Your task to perform on an android device: empty trash in google photos Image 0: 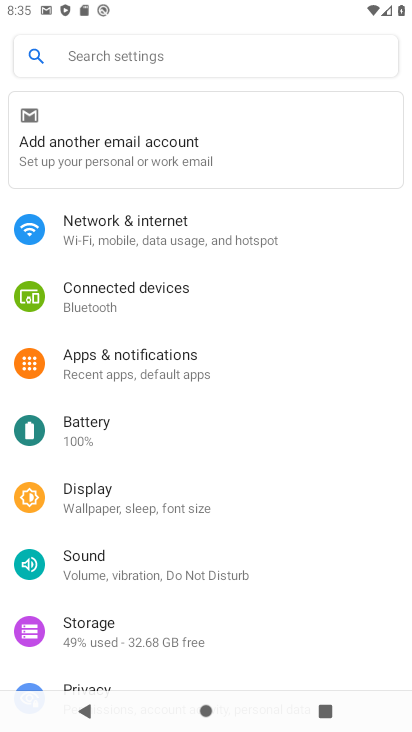
Step 0: press home button
Your task to perform on an android device: empty trash in google photos Image 1: 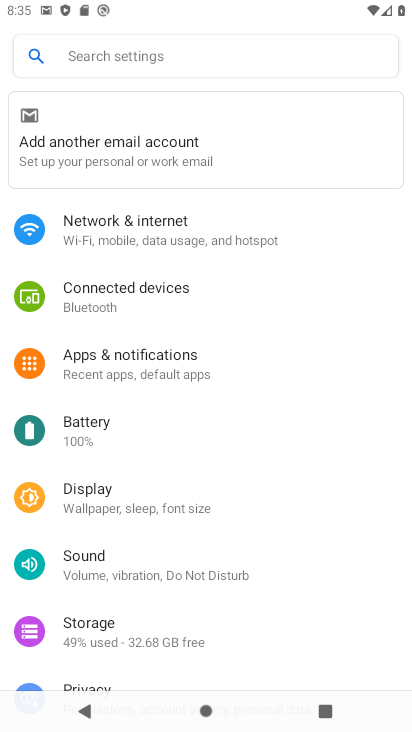
Step 1: press home button
Your task to perform on an android device: empty trash in google photos Image 2: 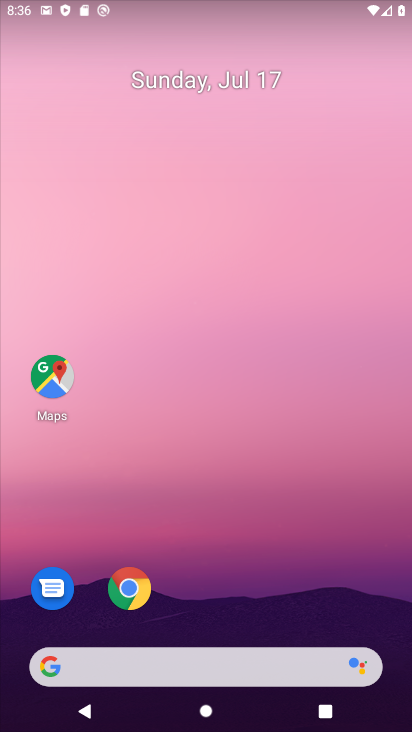
Step 2: drag from (257, 633) to (331, 217)
Your task to perform on an android device: empty trash in google photos Image 3: 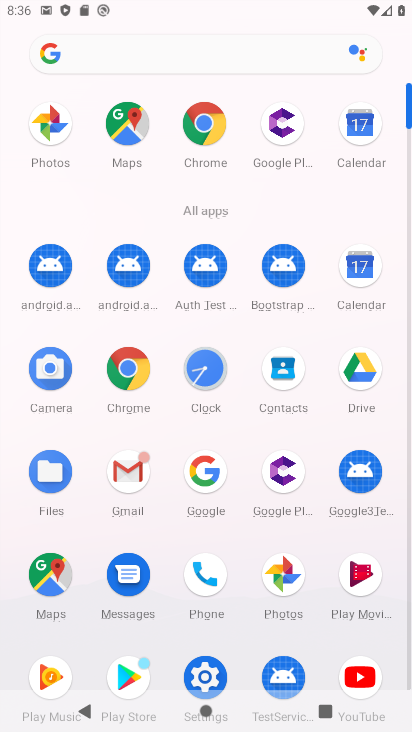
Step 3: click (291, 584)
Your task to perform on an android device: empty trash in google photos Image 4: 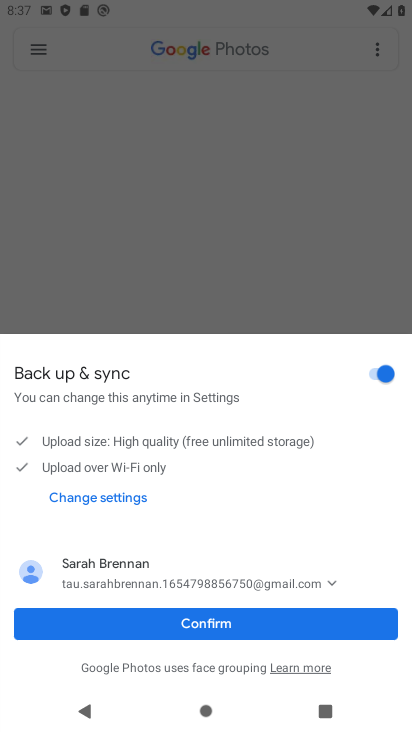
Step 4: click (324, 630)
Your task to perform on an android device: empty trash in google photos Image 5: 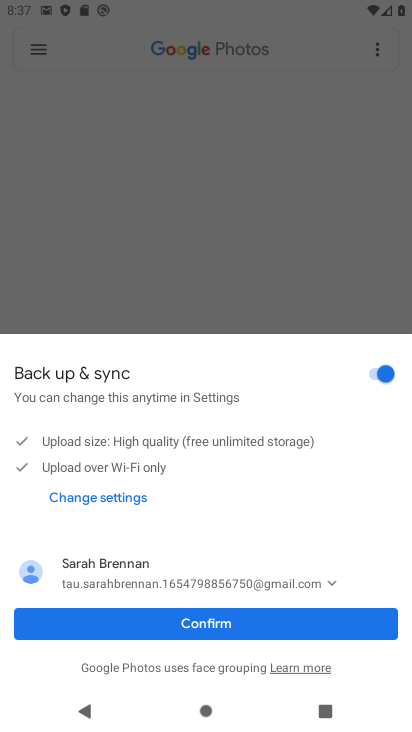
Step 5: click (324, 630)
Your task to perform on an android device: empty trash in google photos Image 6: 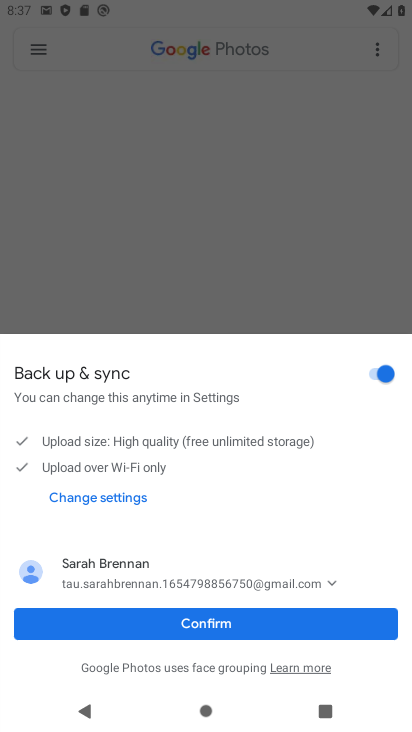
Step 6: click (324, 630)
Your task to perform on an android device: empty trash in google photos Image 7: 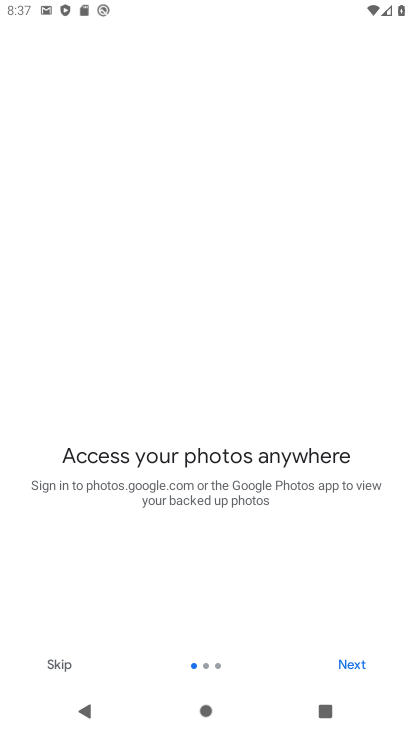
Step 7: click (350, 663)
Your task to perform on an android device: empty trash in google photos Image 8: 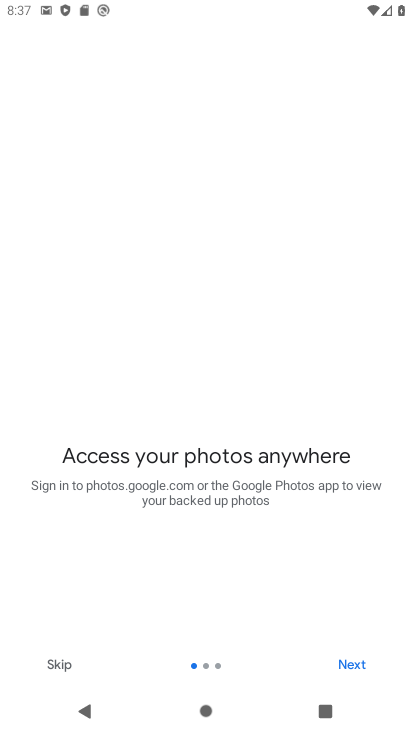
Step 8: click (350, 663)
Your task to perform on an android device: empty trash in google photos Image 9: 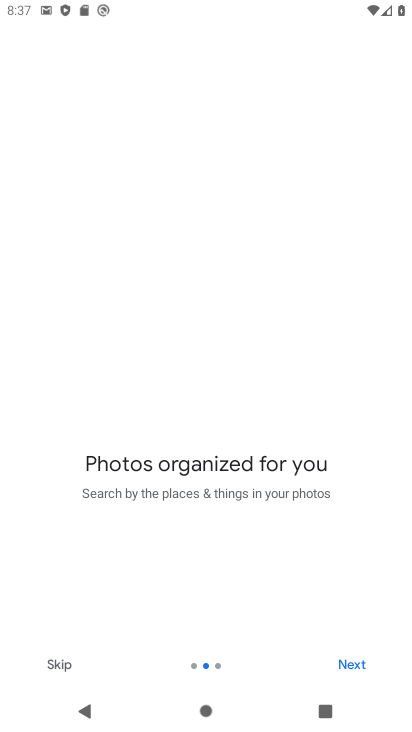
Step 9: click (350, 663)
Your task to perform on an android device: empty trash in google photos Image 10: 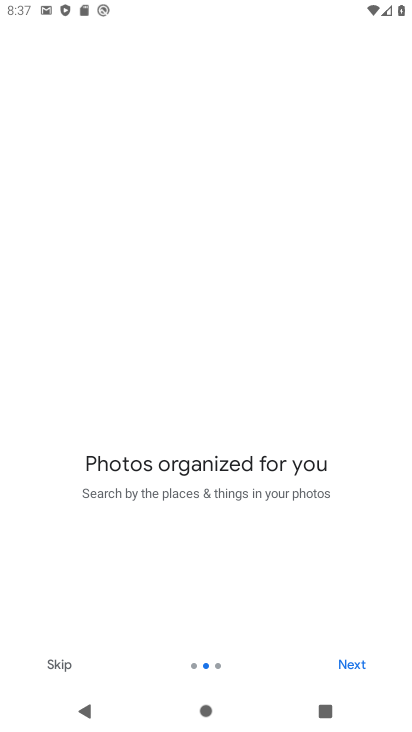
Step 10: click (350, 663)
Your task to perform on an android device: empty trash in google photos Image 11: 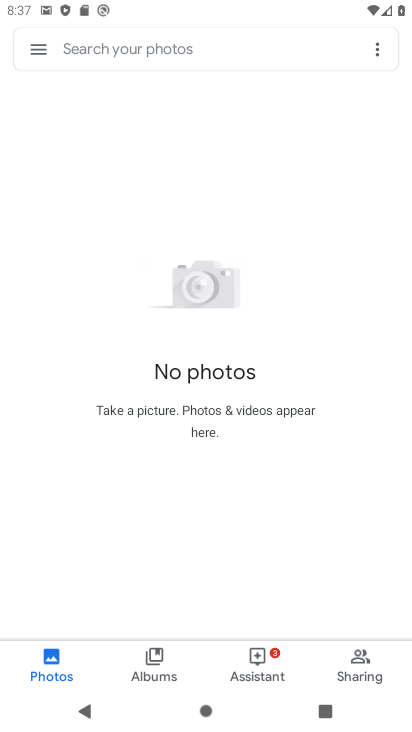
Step 11: click (29, 46)
Your task to perform on an android device: empty trash in google photos Image 12: 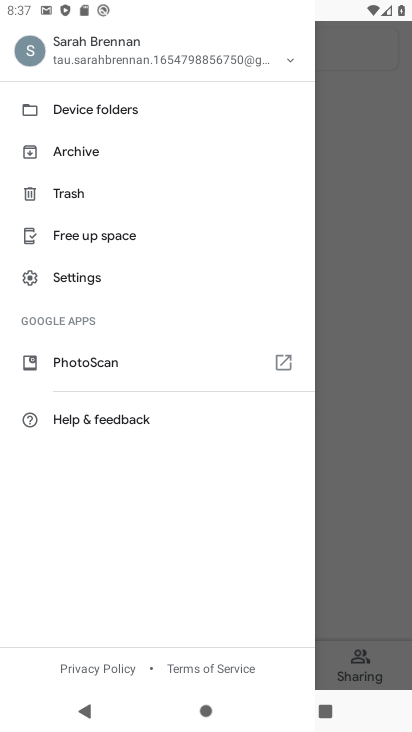
Step 12: click (48, 197)
Your task to perform on an android device: empty trash in google photos Image 13: 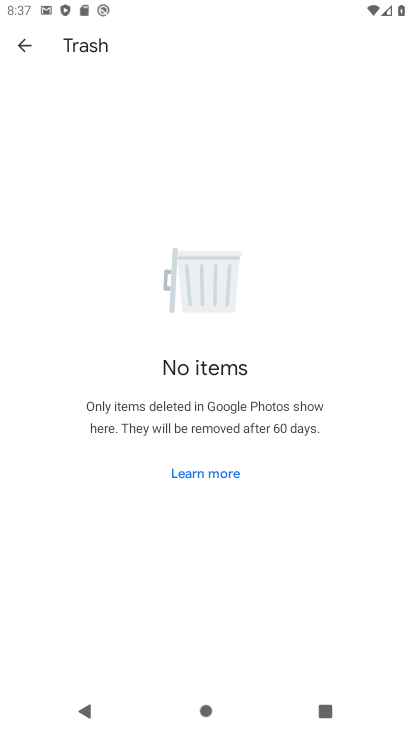
Step 13: task complete